Your task to perform on an android device: turn off javascript in the chrome app Image 0: 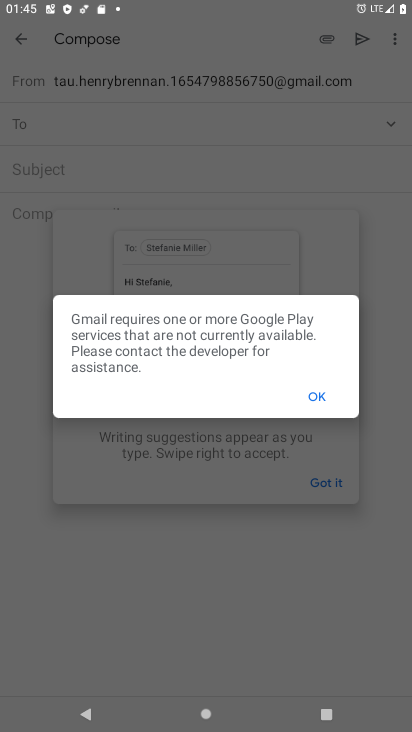
Step 0: click (325, 394)
Your task to perform on an android device: turn off javascript in the chrome app Image 1: 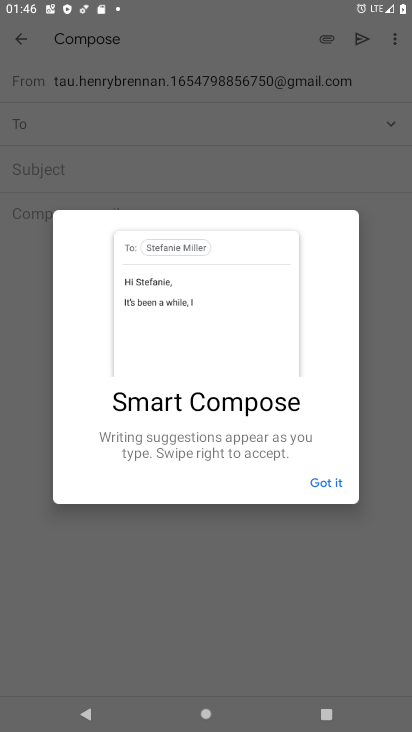
Step 1: press home button
Your task to perform on an android device: turn off javascript in the chrome app Image 2: 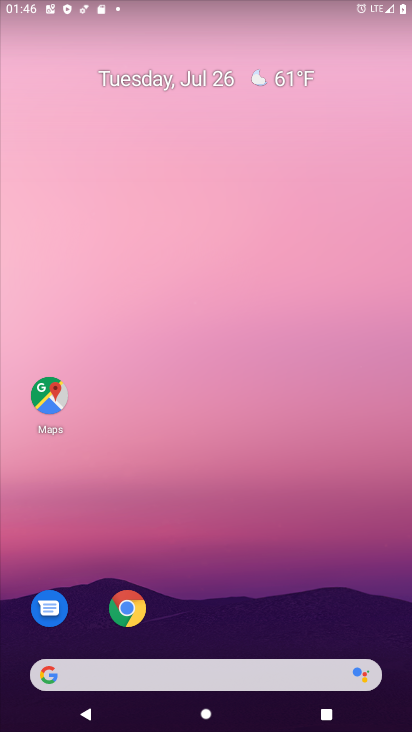
Step 2: click (126, 600)
Your task to perform on an android device: turn off javascript in the chrome app Image 3: 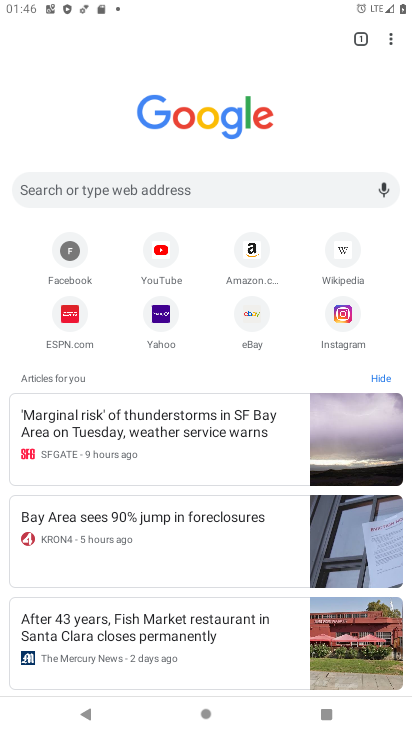
Step 3: click (389, 39)
Your task to perform on an android device: turn off javascript in the chrome app Image 4: 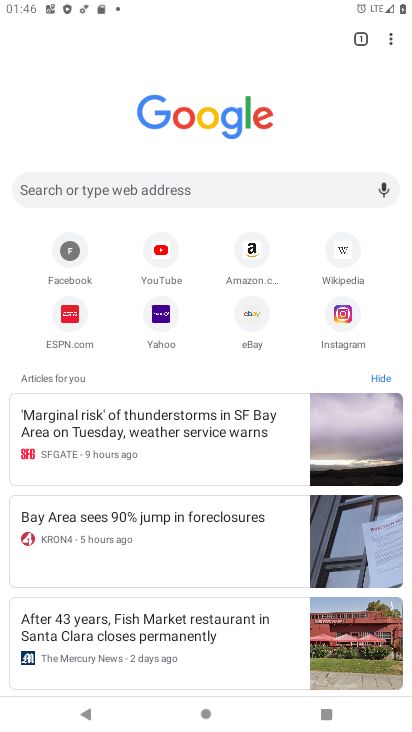
Step 4: click (392, 41)
Your task to perform on an android device: turn off javascript in the chrome app Image 5: 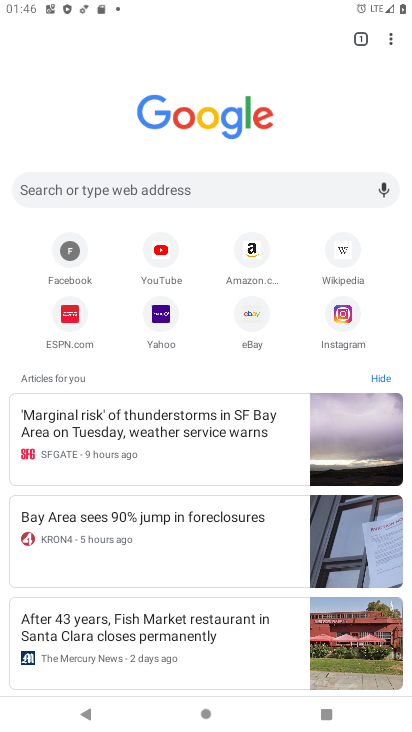
Step 5: click (392, 29)
Your task to perform on an android device: turn off javascript in the chrome app Image 6: 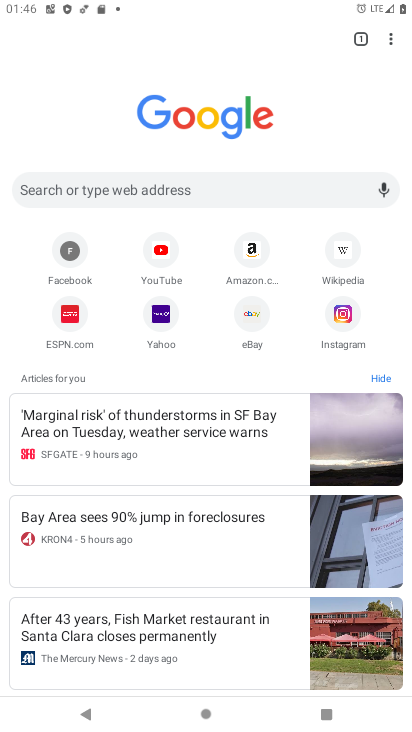
Step 6: click (389, 35)
Your task to perform on an android device: turn off javascript in the chrome app Image 7: 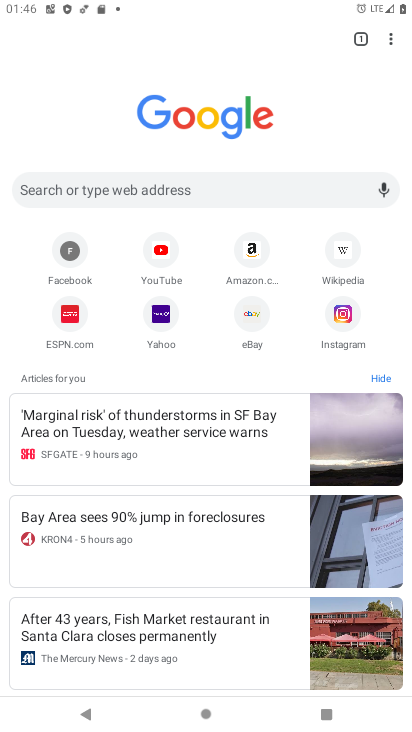
Step 7: click (392, 39)
Your task to perform on an android device: turn off javascript in the chrome app Image 8: 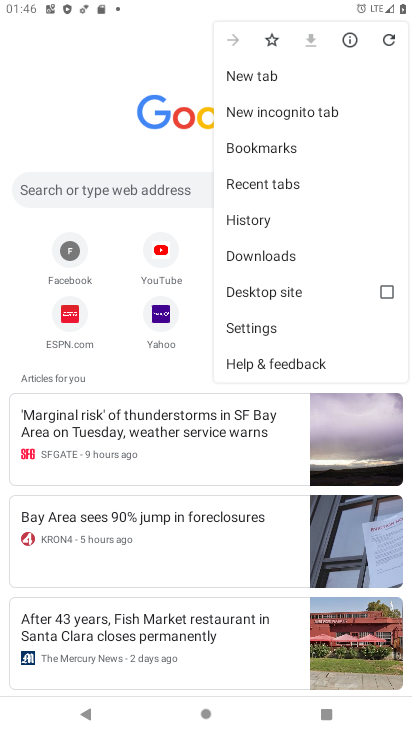
Step 8: click (229, 326)
Your task to perform on an android device: turn off javascript in the chrome app Image 9: 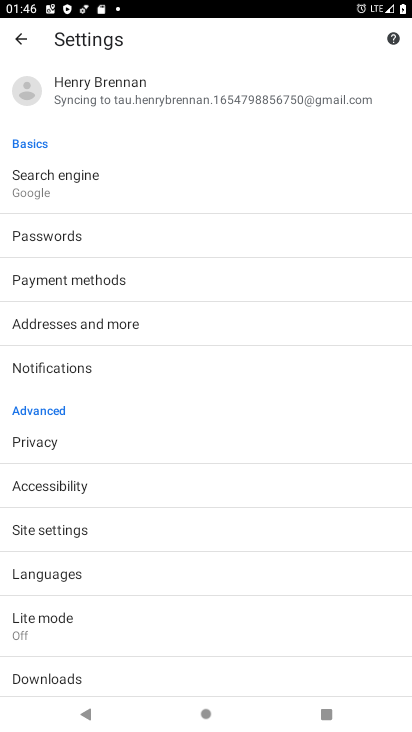
Step 9: click (45, 537)
Your task to perform on an android device: turn off javascript in the chrome app Image 10: 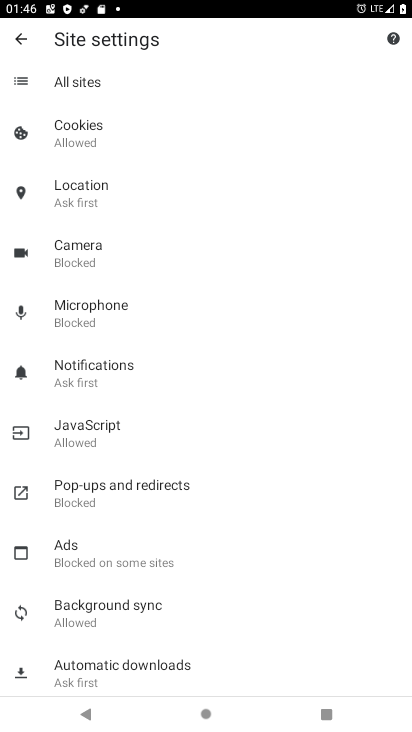
Step 10: click (41, 426)
Your task to perform on an android device: turn off javascript in the chrome app Image 11: 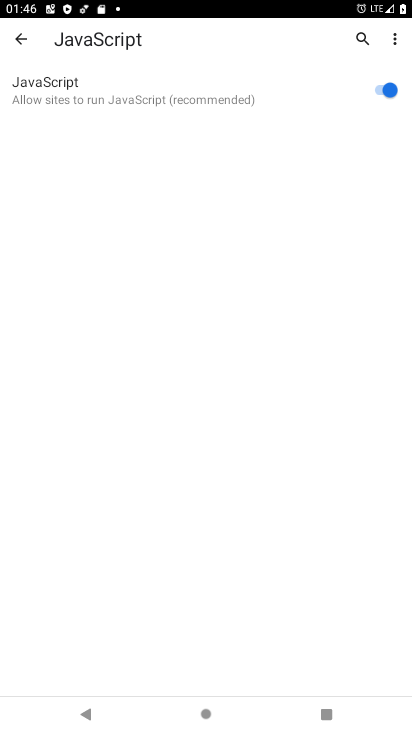
Step 11: click (384, 97)
Your task to perform on an android device: turn off javascript in the chrome app Image 12: 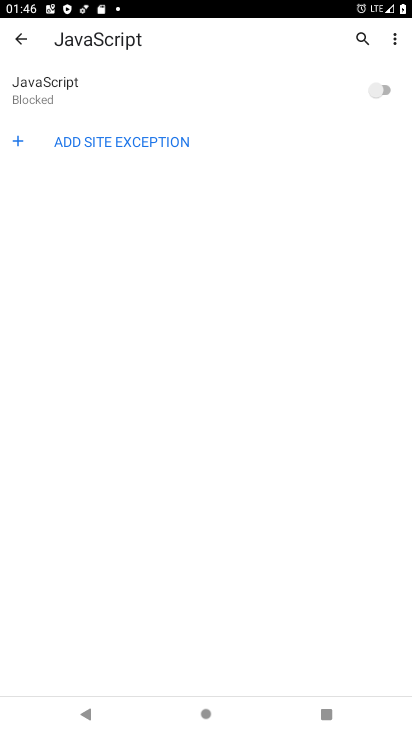
Step 12: task complete